Your task to perform on an android device: Open maps Image 0: 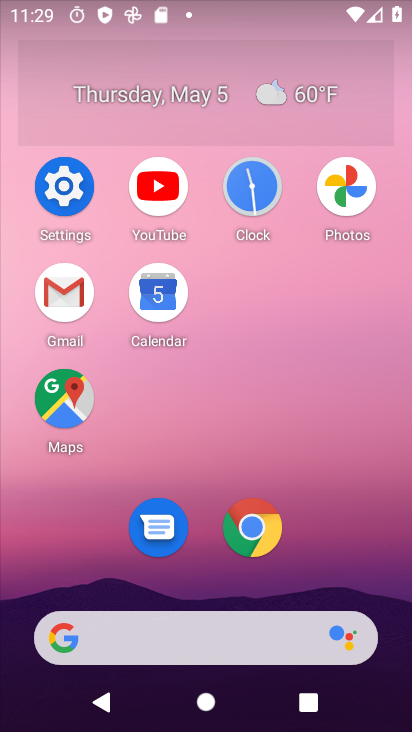
Step 0: click (71, 385)
Your task to perform on an android device: Open maps Image 1: 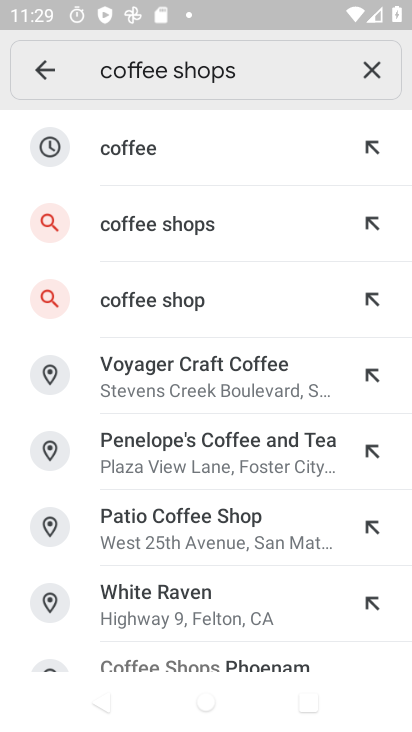
Step 1: task complete